Your task to perform on an android device: Open Amazon Image 0: 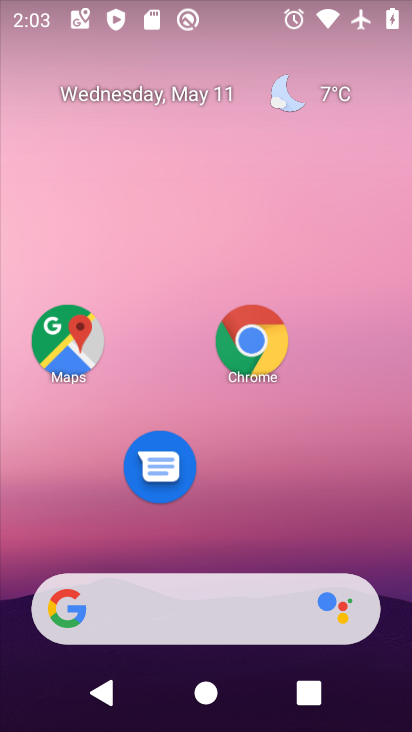
Step 0: click (246, 357)
Your task to perform on an android device: Open Amazon Image 1: 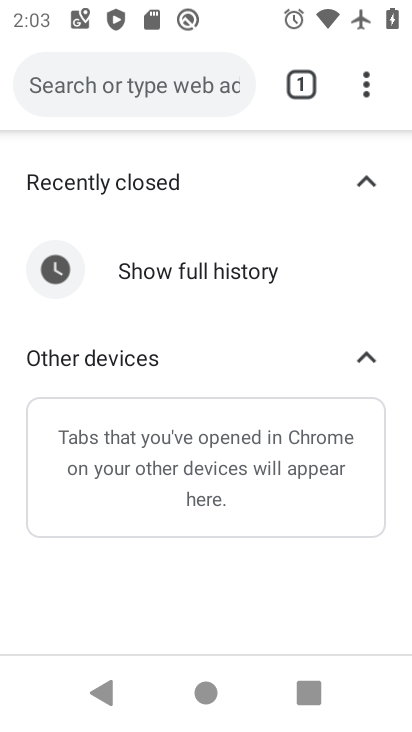
Step 1: drag from (363, 90) to (283, 152)
Your task to perform on an android device: Open Amazon Image 2: 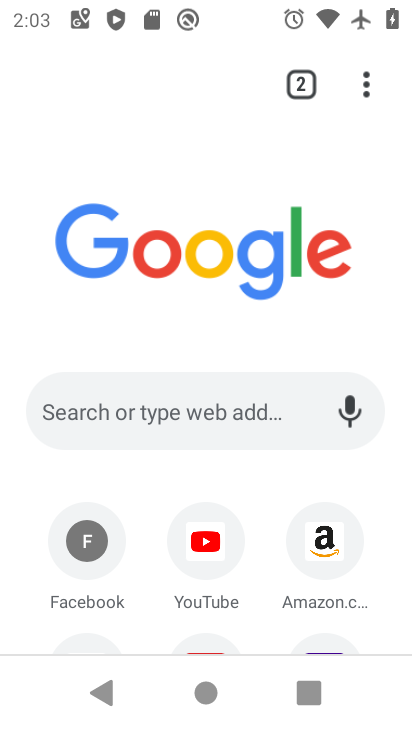
Step 2: click (328, 530)
Your task to perform on an android device: Open Amazon Image 3: 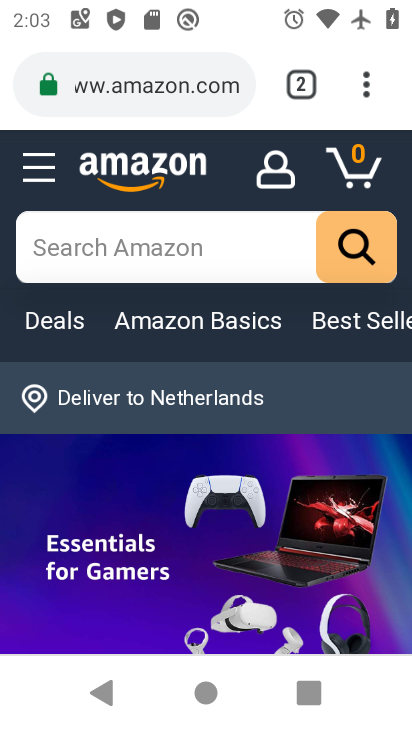
Step 3: task complete